Your task to perform on an android device: Is it going to rain today? Image 0: 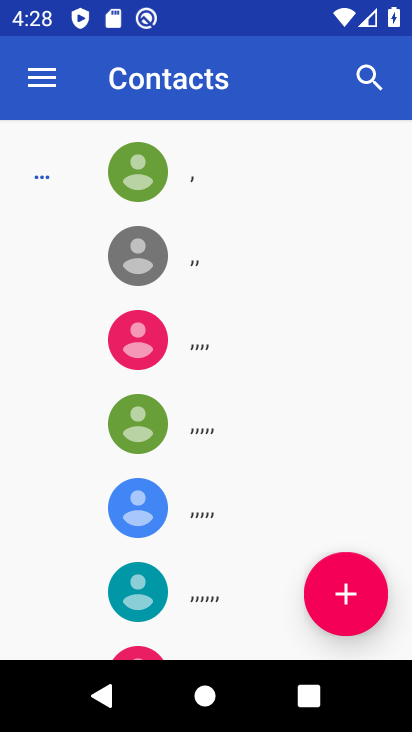
Step 0: press home button
Your task to perform on an android device: Is it going to rain today? Image 1: 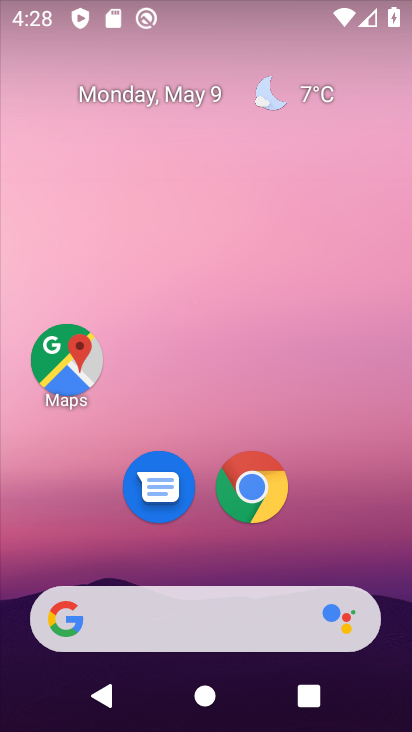
Step 1: click (125, 623)
Your task to perform on an android device: Is it going to rain today? Image 2: 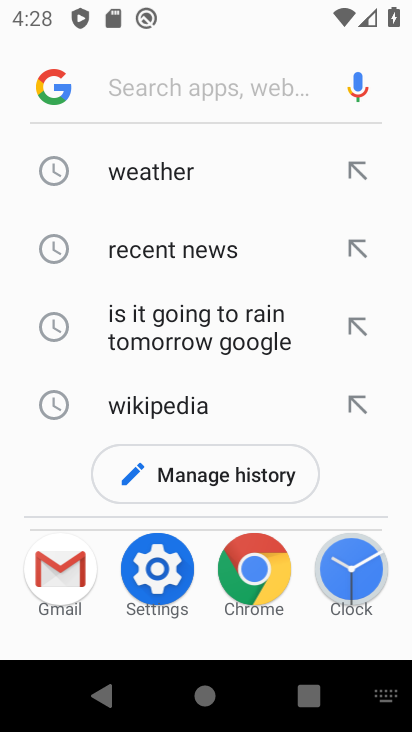
Step 2: type "Is it going to rain today?"
Your task to perform on an android device: Is it going to rain today? Image 3: 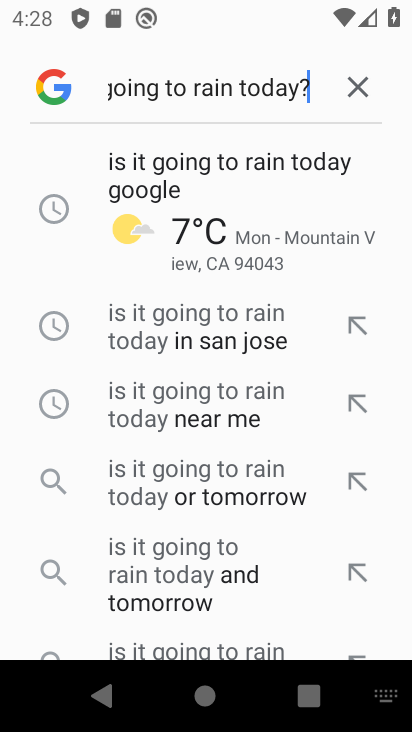
Step 3: click (223, 185)
Your task to perform on an android device: Is it going to rain today? Image 4: 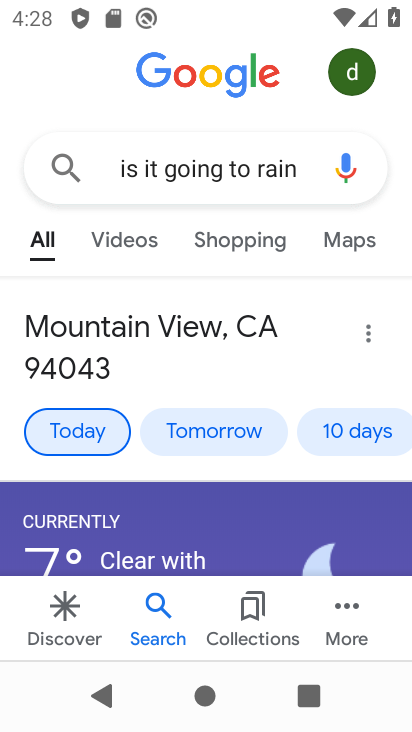
Step 4: task complete